Your task to perform on an android device: toggle notifications settings in the gmail app Image 0: 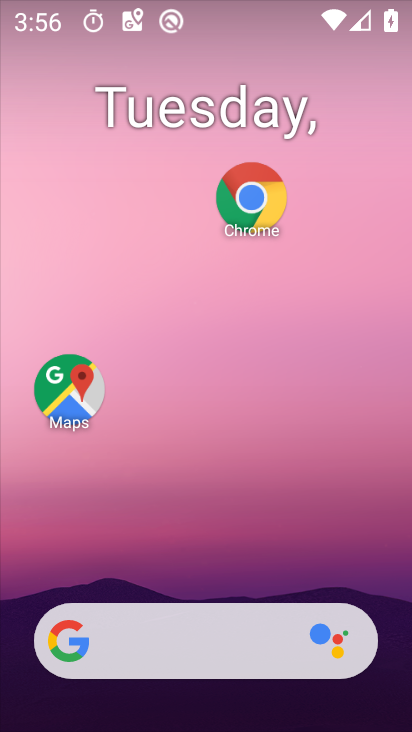
Step 0: drag from (162, 595) to (168, 130)
Your task to perform on an android device: toggle notifications settings in the gmail app Image 1: 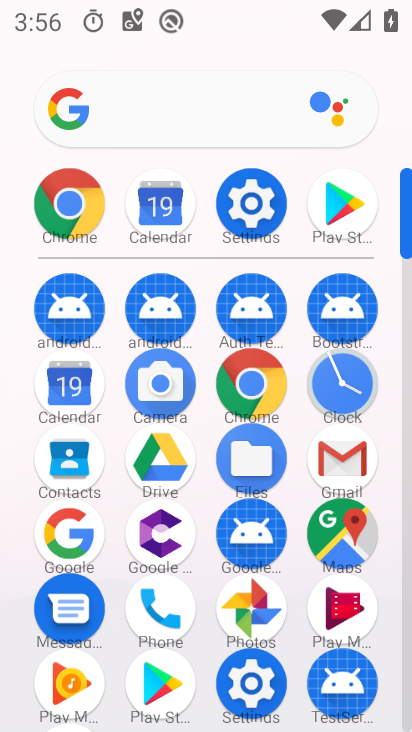
Step 1: click (341, 456)
Your task to perform on an android device: toggle notifications settings in the gmail app Image 2: 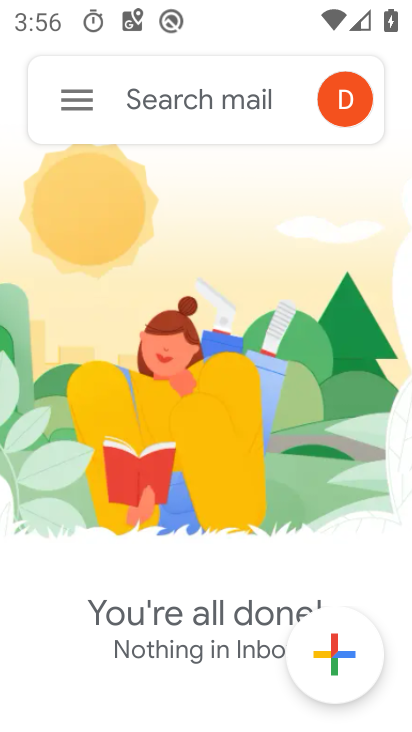
Step 2: click (72, 91)
Your task to perform on an android device: toggle notifications settings in the gmail app Image 3: 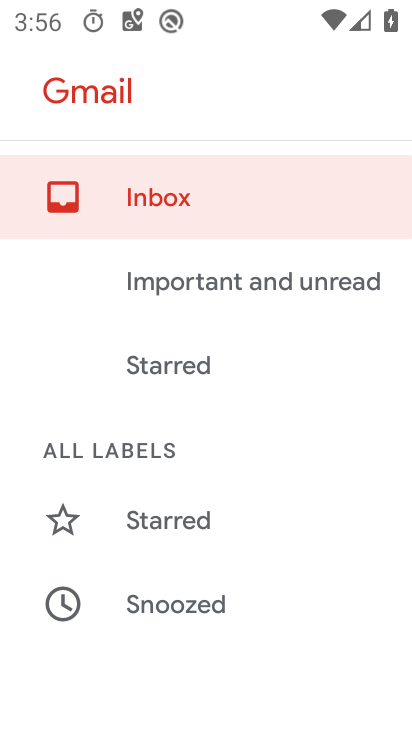
Step 3: drag from (146, 583) to (183, 230)
Your task to perform on an android device: toggle notifications settings in the gmail app Image 4: 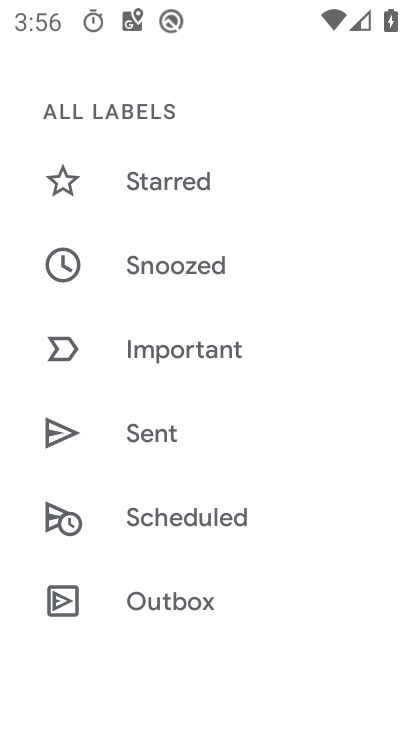
Step 4: drag from (193, 621) to (176, 263)
Your task to perform on an android device: toggle notifications settings in the gmail app Image 5: 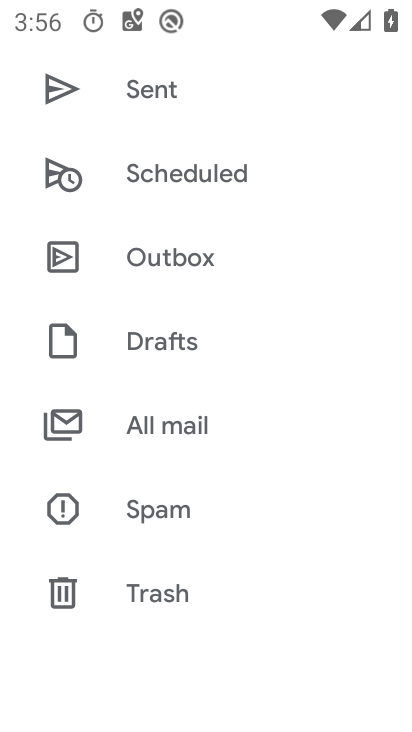
Step 5: drag from (179, 554) to (200, 298)
Your task to perform on an android device: toggle notifications settings in the gmail app Image 6: 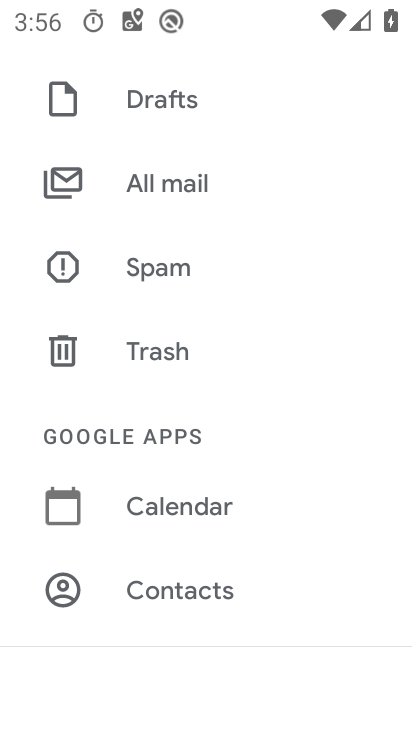
Step 6: drag from (174, 589) to (189, 231)
Your task to perform on an android device: toggle notifications settings in the gmail app Image 7: 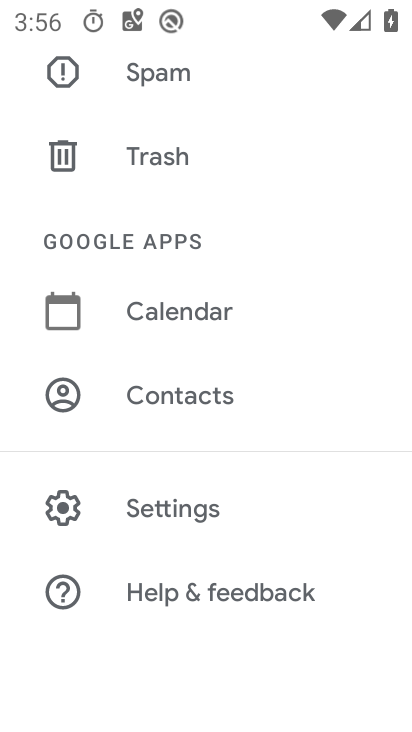
Step 7: click (153, 516)
Your task to perform on an android device: toggle notifications settings in the gmail app Image 8: 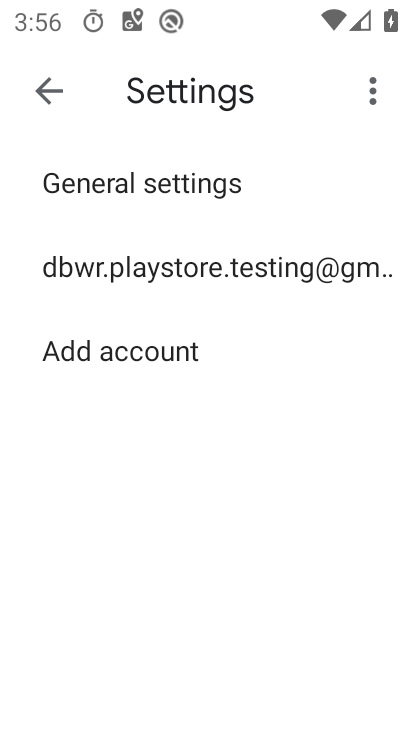
Step 8: click (130, 269)
Your task to perform on an android device: toggle notifications settings in the gmail app Image 9: 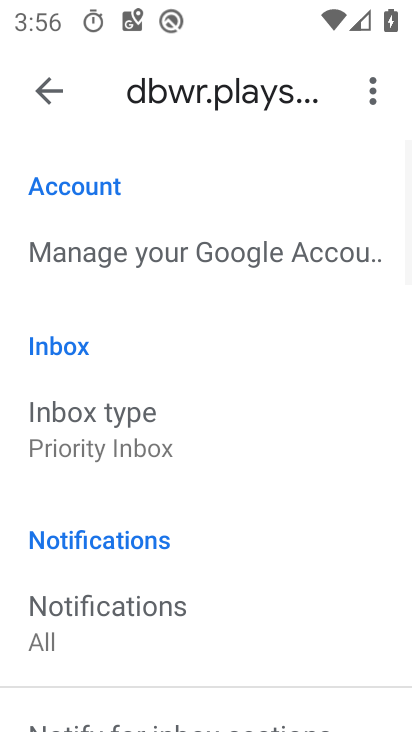
Step 9: click (32, 80)
Your task to perform on an android device: toggle notifications settings in the gmail app Image 10: 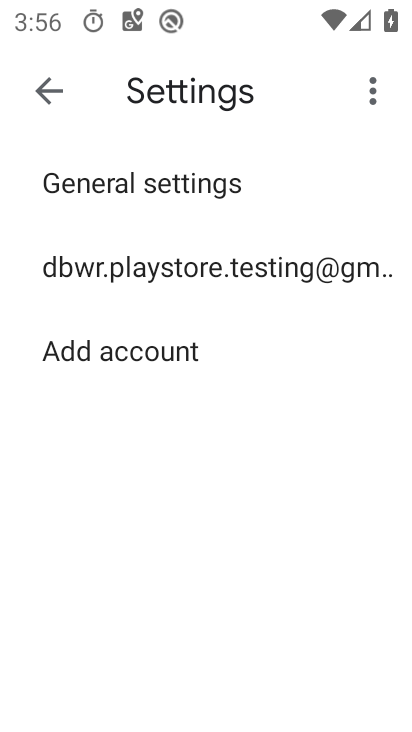
Step 10: click (133, 188)
Your task to perform on an android device: toggle notifications settings in the gmail app Image 11: 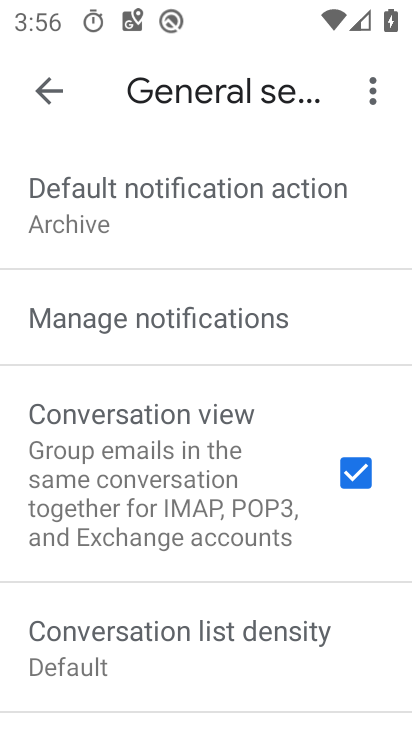
Step 11: click (92, 325)
Your task to perform on an android device: toggle notifications settings in the gmail app Image 12: 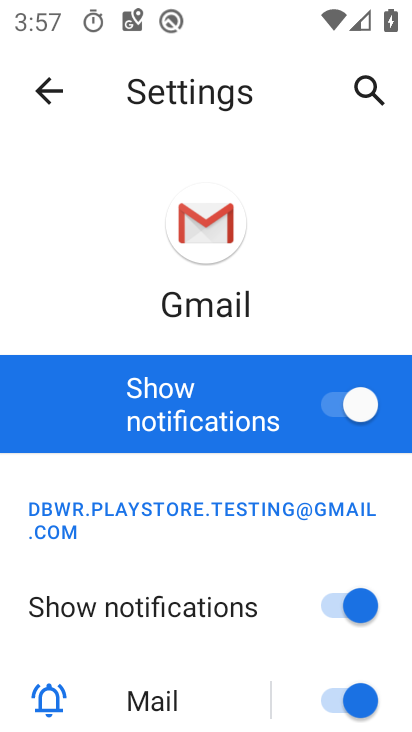
Step 12: click (326, 411)
Your task to perform on an android device: toggle notifications settings in the gmail app Image 13: 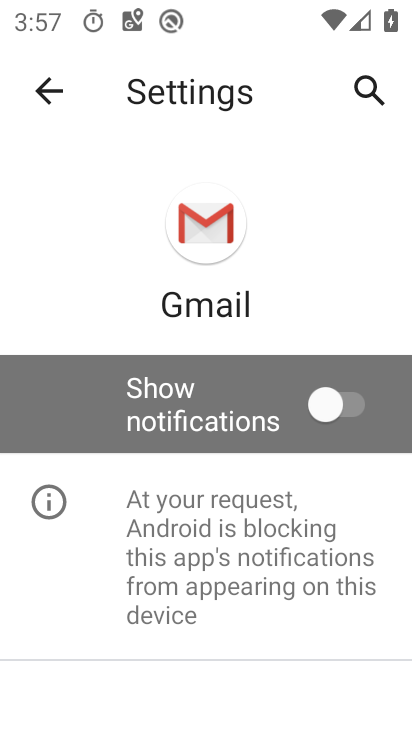
Step 13: task complete